Your task to perform on an android device: change the clock style Image 0: 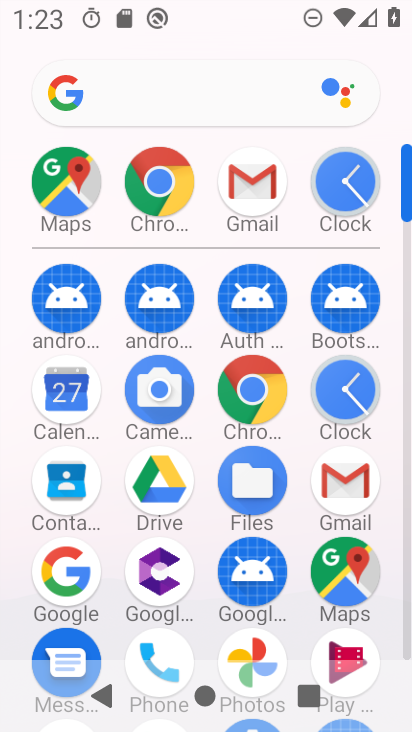
Step 0: click (355, 398)
Your task to perform on an android device: change the clock style Image 1: 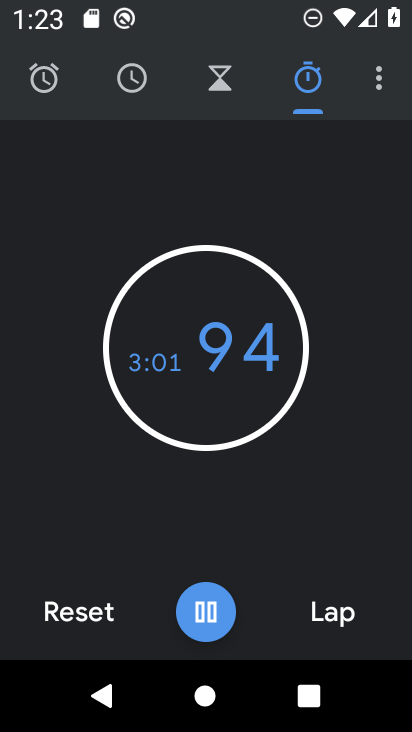
Step 1: click (380, 87)
Your task to perform on an android device: change the clock style Image 2: 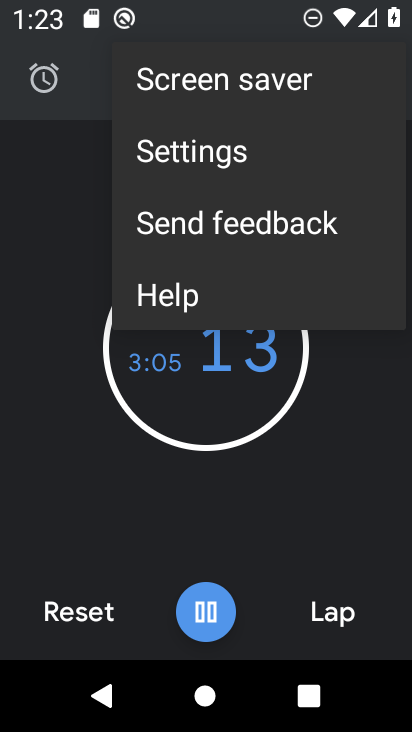
Step 2: click (322, 147)
Your task to perform on an android device: change the clock style Image 3: 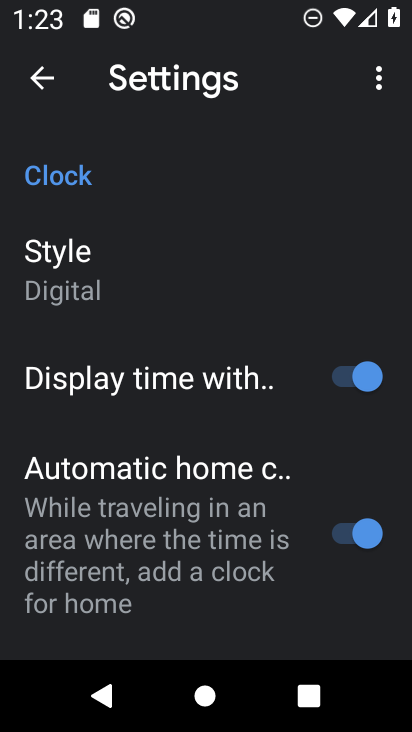
Step 3: drag from (279, 413) to (281, 376)
Your task to perform on an android device: change the clock style Image 4: 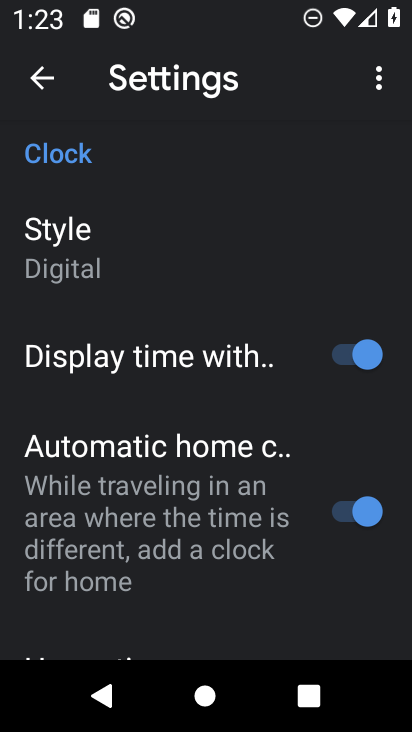
Step 4: drag from (262, 467) to (267, 403)
Your task to perform on an android device: change the clock style Image 5: 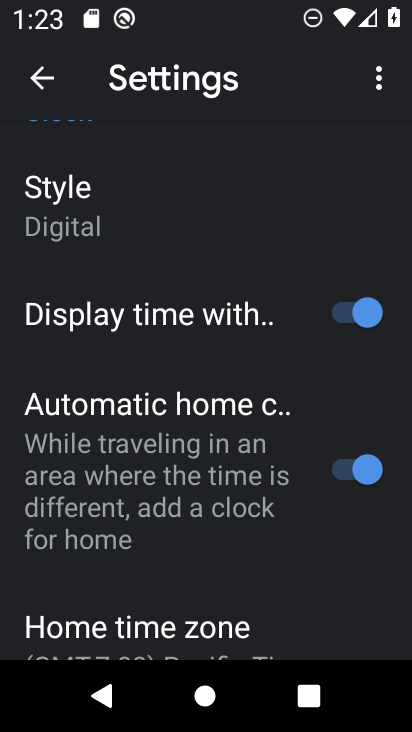
Step 5: drag from (256, 490) to (252, 416)
Your task to perform on an android device: change the clock style Image 6: 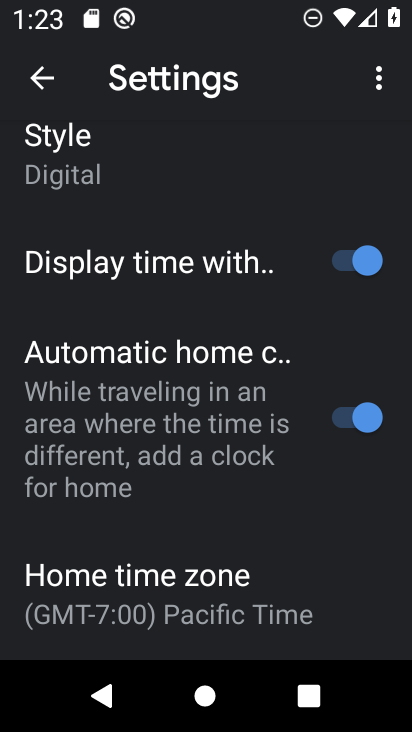
Step 6: drag from (255, 516) to (253, 436)
Your task to perform on an android device: change the clock style Image 7: 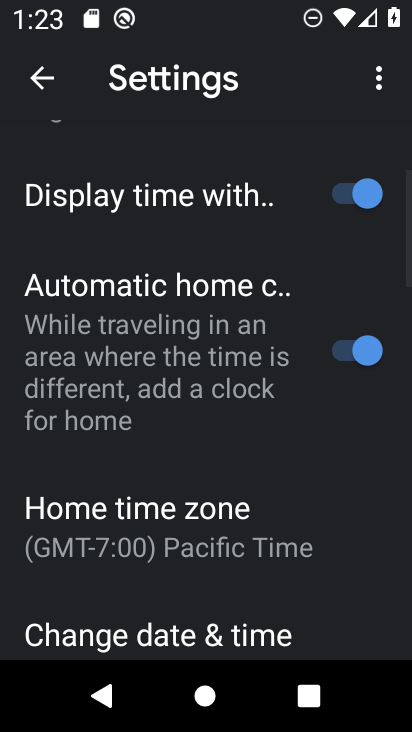
Step 7: drag from (285, 542) to (288, 489)
Your task to perform on an android device: change the clock style Image 8: 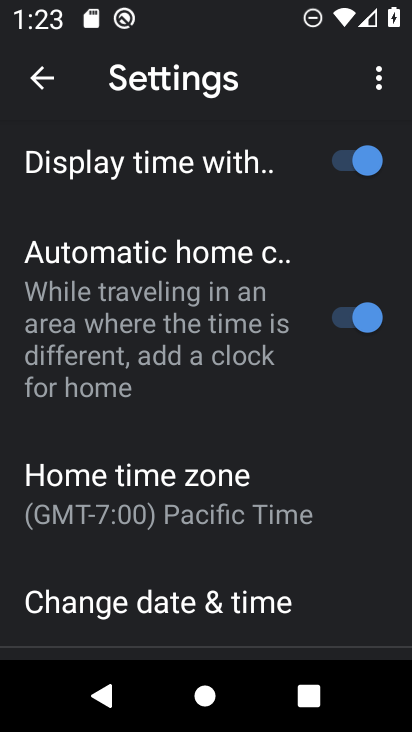
Step 8: drag from (290, 577) to (294, 522)
Your task to perform on an android device: change the clock style Image 9: 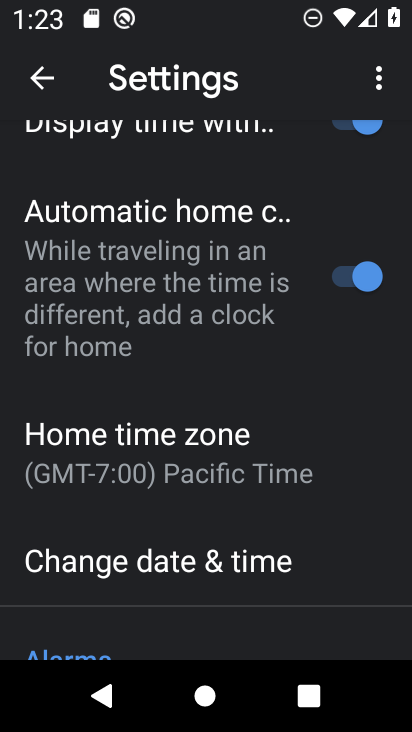
Step 9: drag from (327, 591) to (333, 539)
Your task to perform on an android device: change the clock style Image 10: 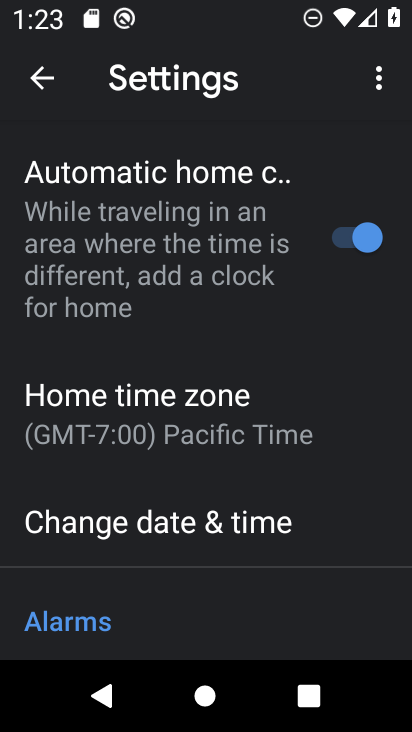
Step 10: drag from (339, 572) to (341, 520)
Your task to perform on an android device: change the clock style Image 11: 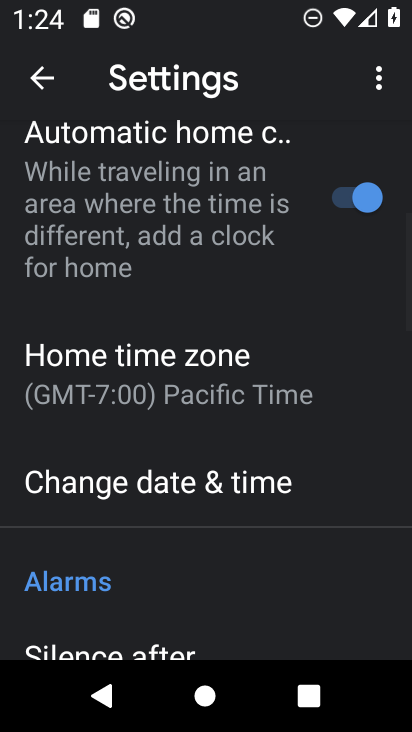
Step 11: drag from (335, 549) to (339, 482)
Your task to perform on an android device: change the clock style Image 12: 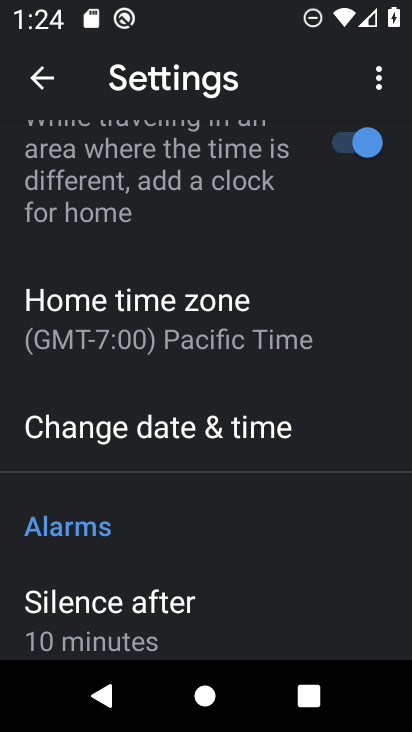
Step 12: drag from (324, 565) to (326, 515)
Your task to perform on an android device: change the clock style Image 13: 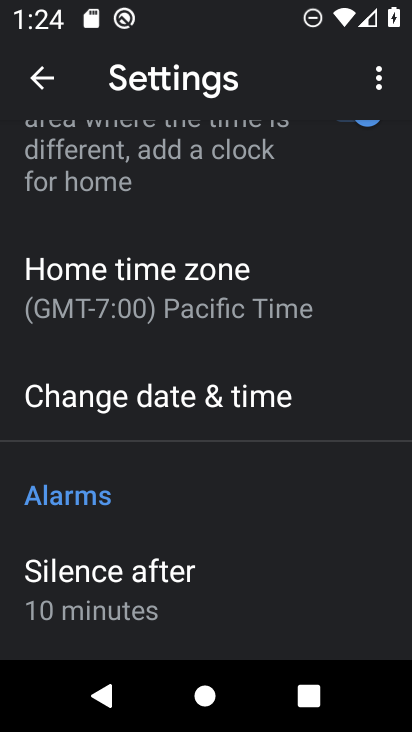
Step 13: drag from (331, 581) to (334, 516)
Your task to perform on an android device: change the clock style Image 14: 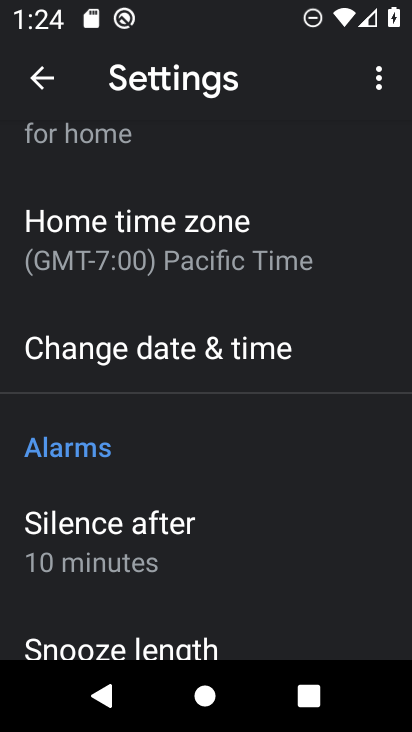
Step 14: drag from (339, 574) to (350, 499)
Your task to perform on an android device: change the clock style Image 15: 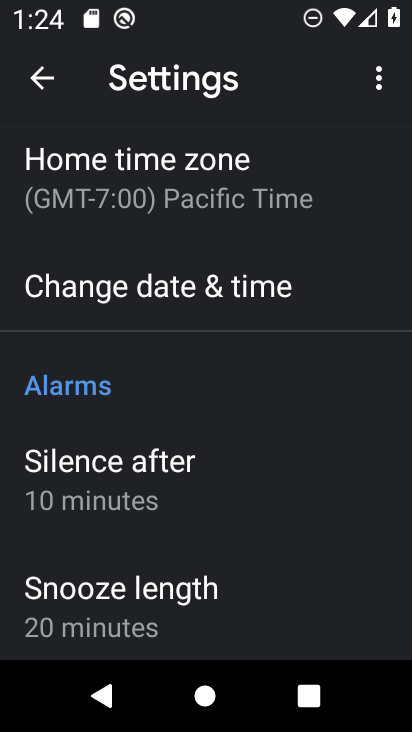
Step 15: drag from (349, 367) to (355, 423)
Your task to perform on an android device: change the clock style Image 16: 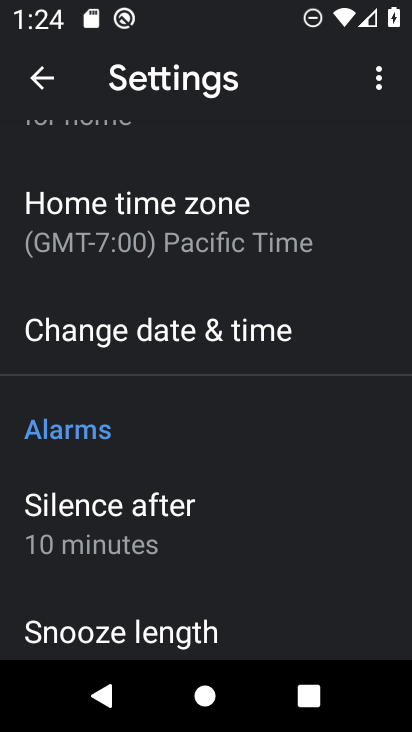
Step 16: drag from (359, 307) to (364, 366)
Your task to perform on an android device: change the clock style Image 17: 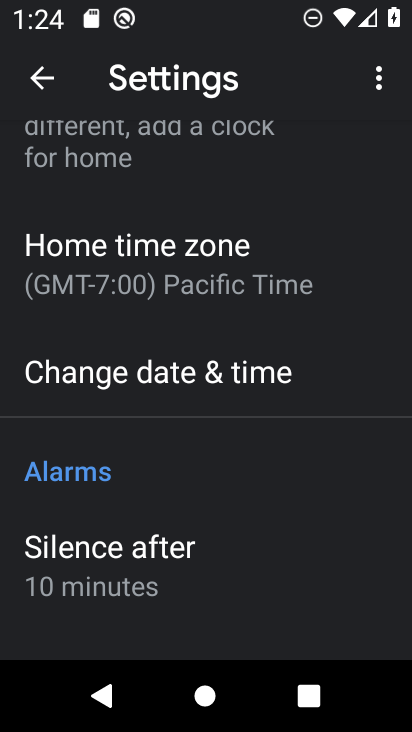
Step 17: drag from (364, 268) to (365, 365)
Your task to perform on an android device: change the clock style Image 18: 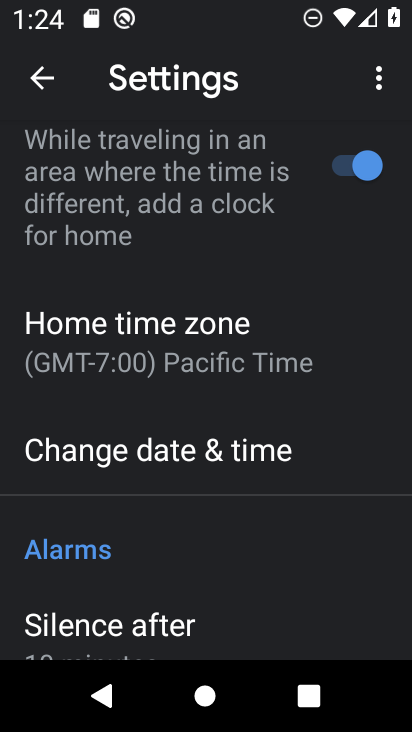
Step 18: drag from (346, 291) to (344, 354)
Your task to perform on an android device: change the clock style Image 19: 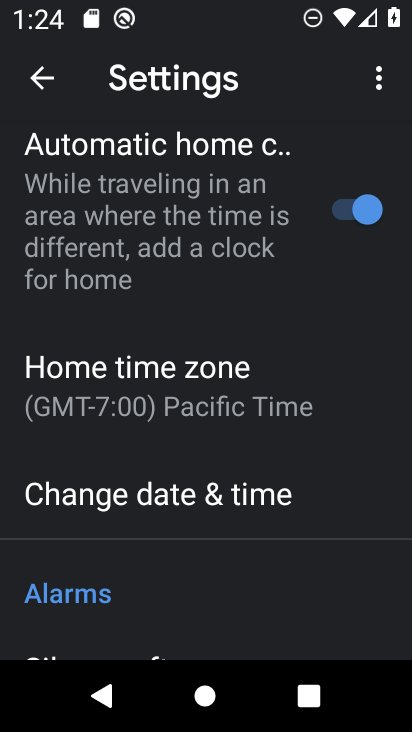
Step 19: drag from (316, 254) to (317, 344)
Your task to perform on an android device: change the clock style Image 20: 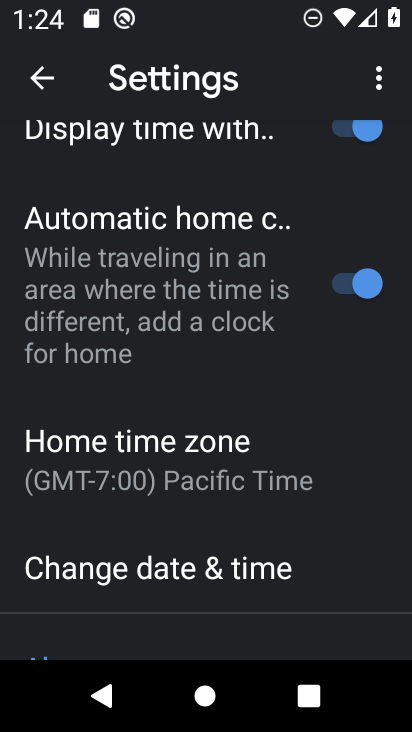
Step 20: drag from (299, 234) to (300, 415)
Your task to perform on an android device: change the clock style Image 21: 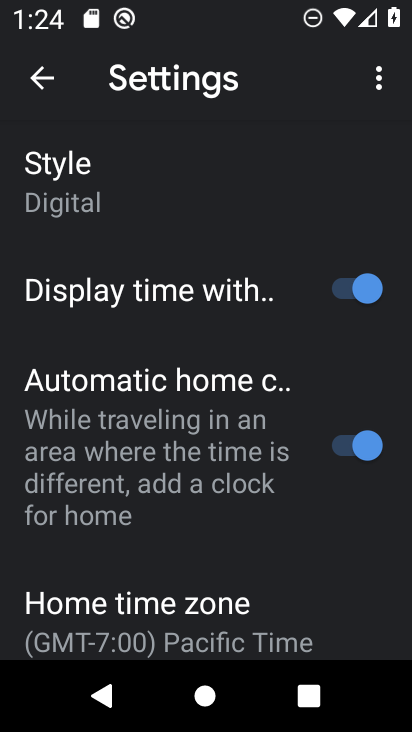
Step 21: drag from (281, 209) to (281, 318)
Your task to perform on an android device: change the clock style Image 22: 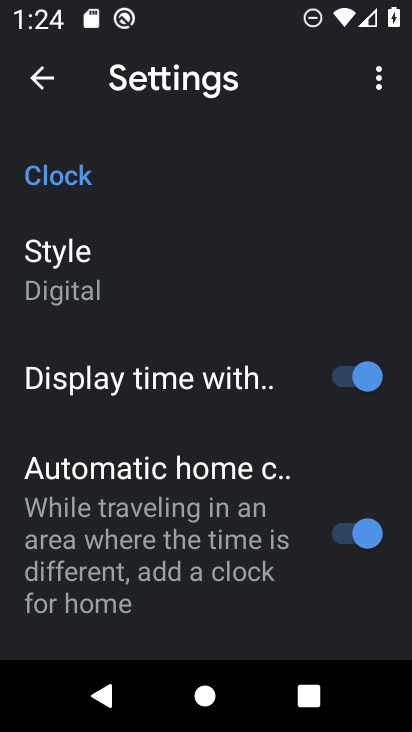
Step 22: drag from (278, 194) to (278, 382)
Your task to perform on an android device: change the clock style Image 23: 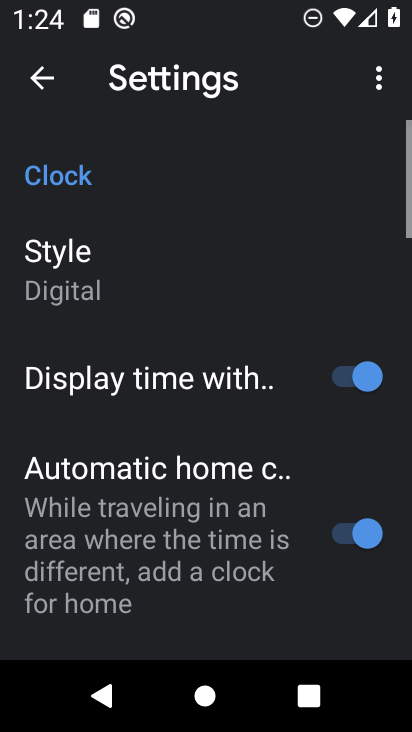
Step 23: click (103, 296)
Your task to perform on an android device: change the clock style Image 24: 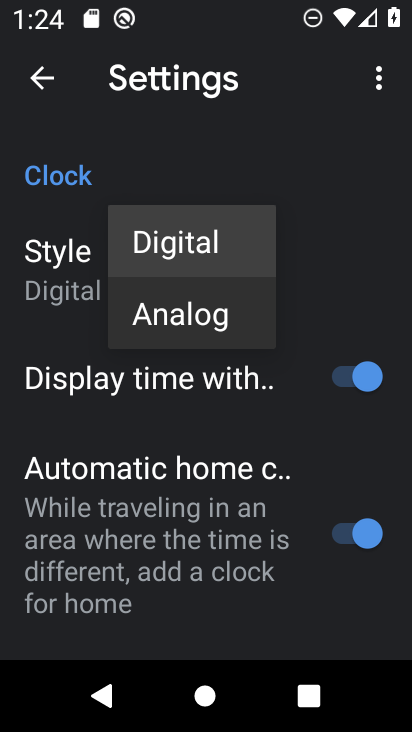
Step 24: click (173, 324)
Your task to perform on an android device: change the clock style Image 25: 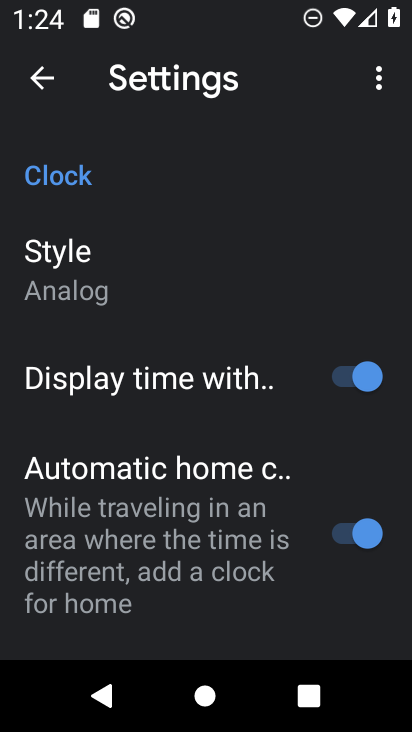
Step 25: task complete